Your task to perform on an android device: open app "The Home Depot" (install if not already installed), go to login, and select forgot password Image 0: 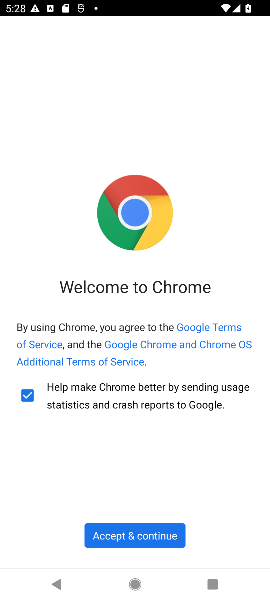
Step 0: press home button
Your task to perform on an android device: open app "The Home Depot" (install if not already installed), go to login, and select forgot password Image 1: 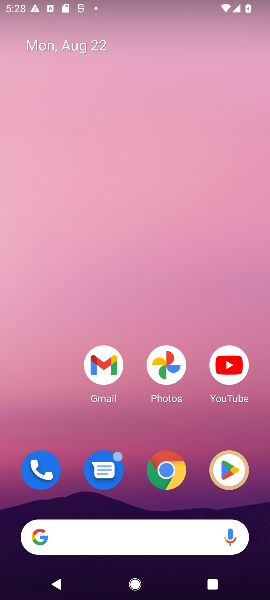
Step 1: click (235, 460)
Your task to perform on an android device: open app "The Home Depot" (install if not already installed), go to login, and select forgot password Image 2: 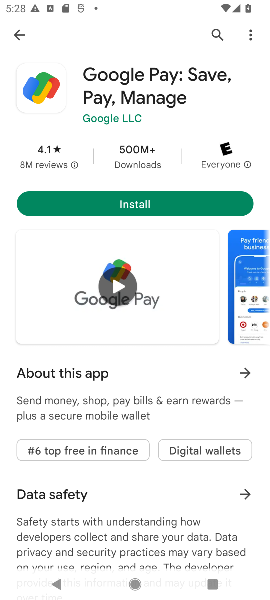
Step 2: click (2, 31)
Your task to perform on an android device: open app "The Home Depot" (install if not already installed), go to login, and select forgot password Image 3: 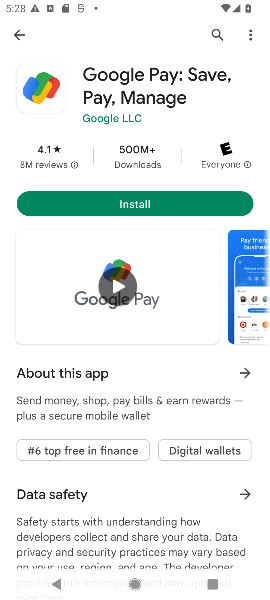
Step 3: click (16, 32)
Your task to perform on an android device: open app "The Home Depot" (install if not already installed), go to login, and select forgot password Image 4: 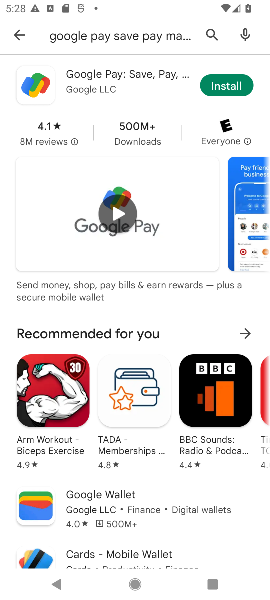
Step 4: click (16, 32)
Your task to perform on an android device: open app "The Home Depot" (install if not already installed), go to login, and select forgot password Image 5: 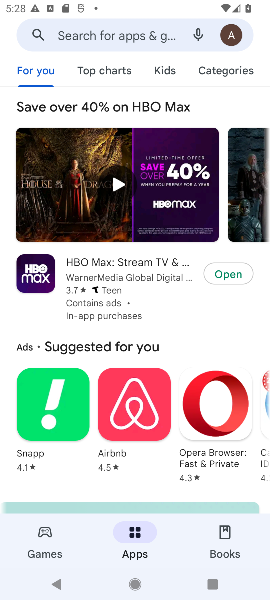
Step 5: click (125, 32)
Your task to perform on an android device: open app "The Home Depot" (install if not already installed), go to login, and select forgot password Image 6: 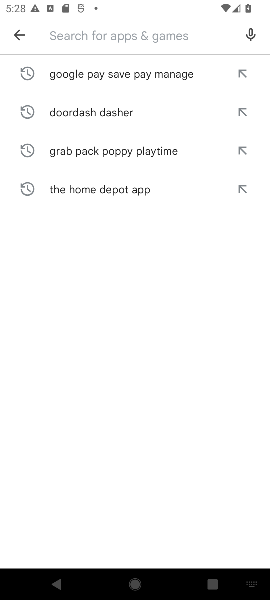
Step 6: type "The Home Depot "
Your task to perform on an android device: open app "The Home Depot" (install if not already installed), go to login, and select forgot password Image 7: 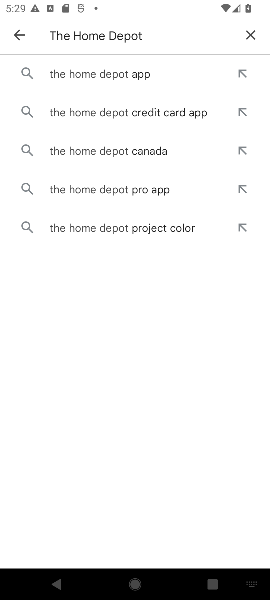
Step 7: click (75, 72)
Your task to perform on an android device: open app "The Home Depot" (install if not already installed), go to login, and select forgot password Image 8: 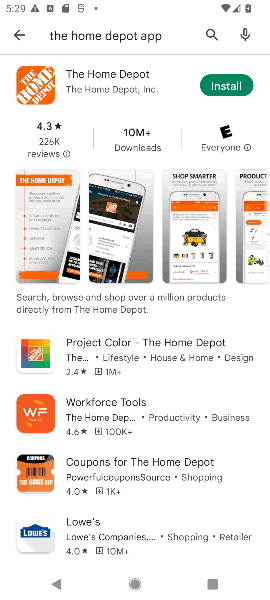
Step 8: click (224, 80)
Your task to perform on an android device: open app "The Home Depot" (install if not already installed), go to login, and select forgot password Image 9: 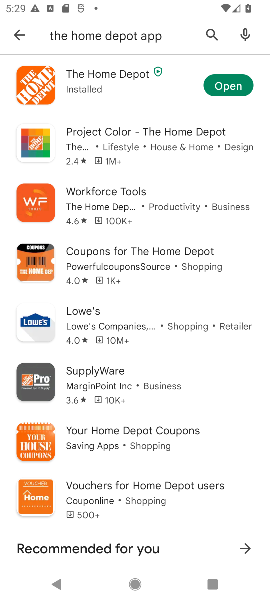
Step 9: click (224, 80)
Your task to perform on an android device: open app "The Home Depot" (install if not already installed), go to login, and select forgot password Image 10: 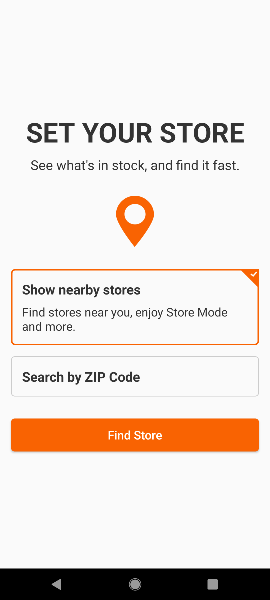
Step 10: task complete